Your task to perform on an android device: Turn on the flashlight Image 0: 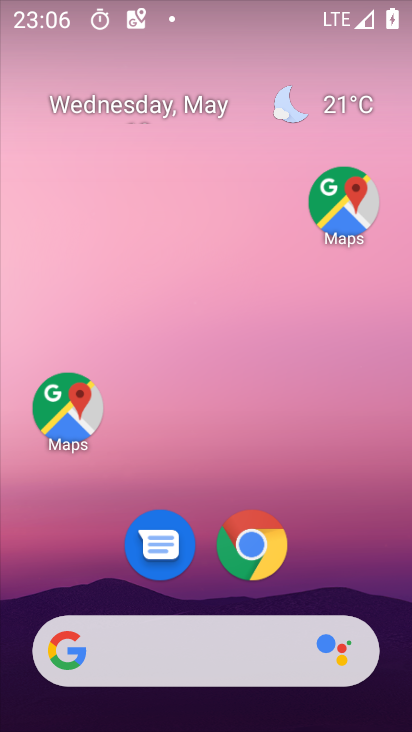
Step 0: drag from (329, 538) to (344, 65)
Your task to perform on an android device: Turn on the flashlight Image 1: 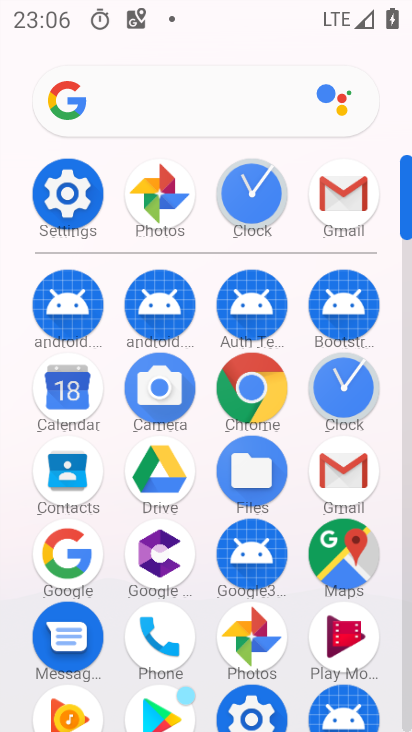
Step 1: click (62, 192)
Your task to perform on an android device: Turn on the flashlight Image 2: 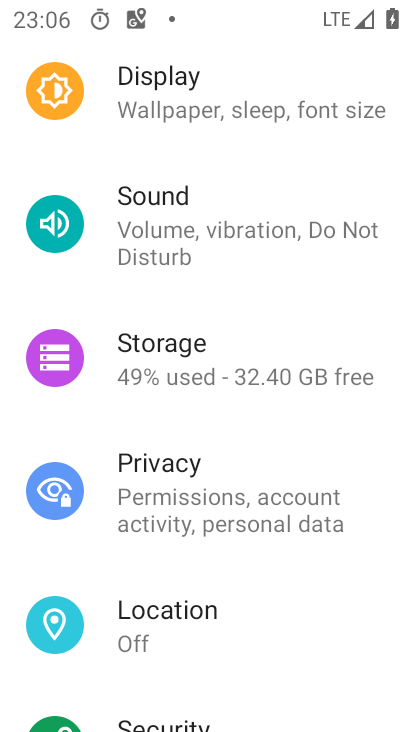
Step 2: task complete